Your task to perform on an android device: turn off data saver in the chrome app Image 0: 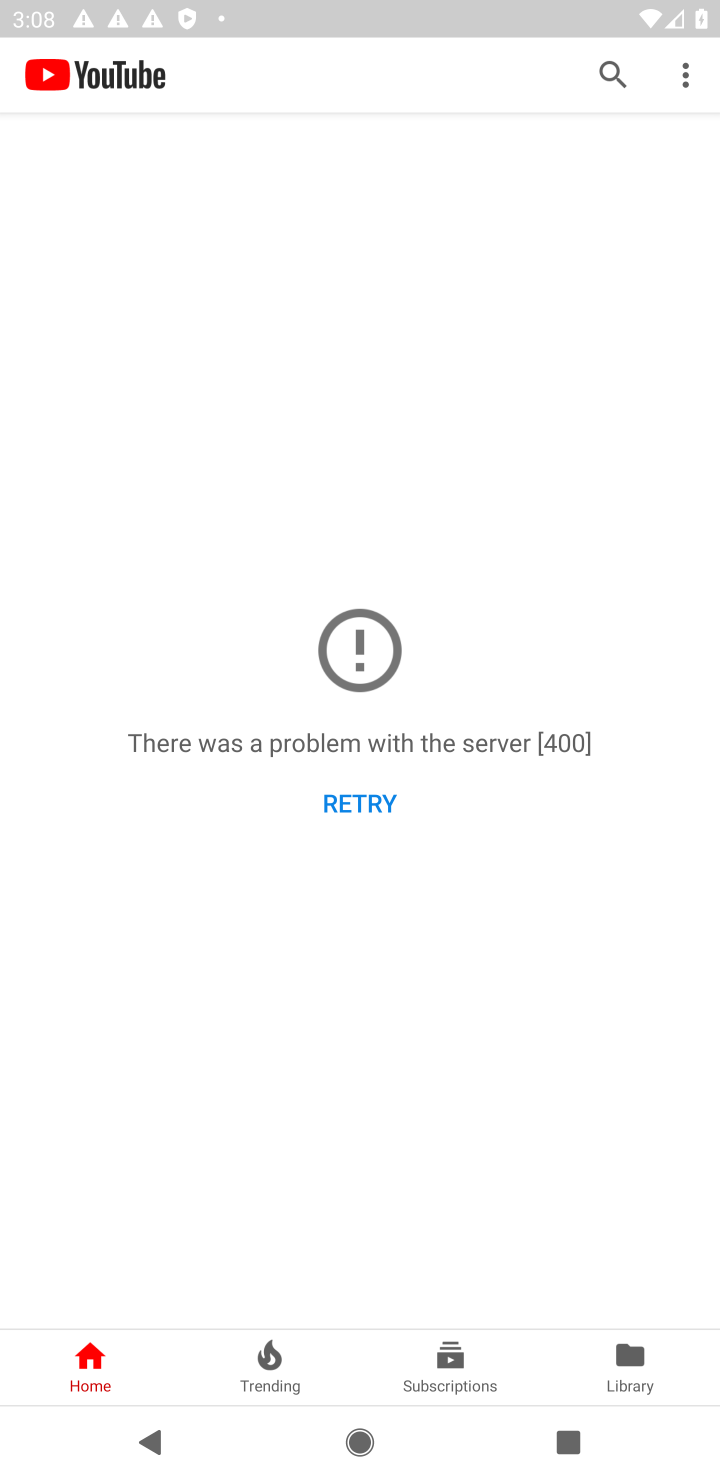
Step 0: press home button
Your task to perform on an android device: turn off data saver in the chrome app Image 1: 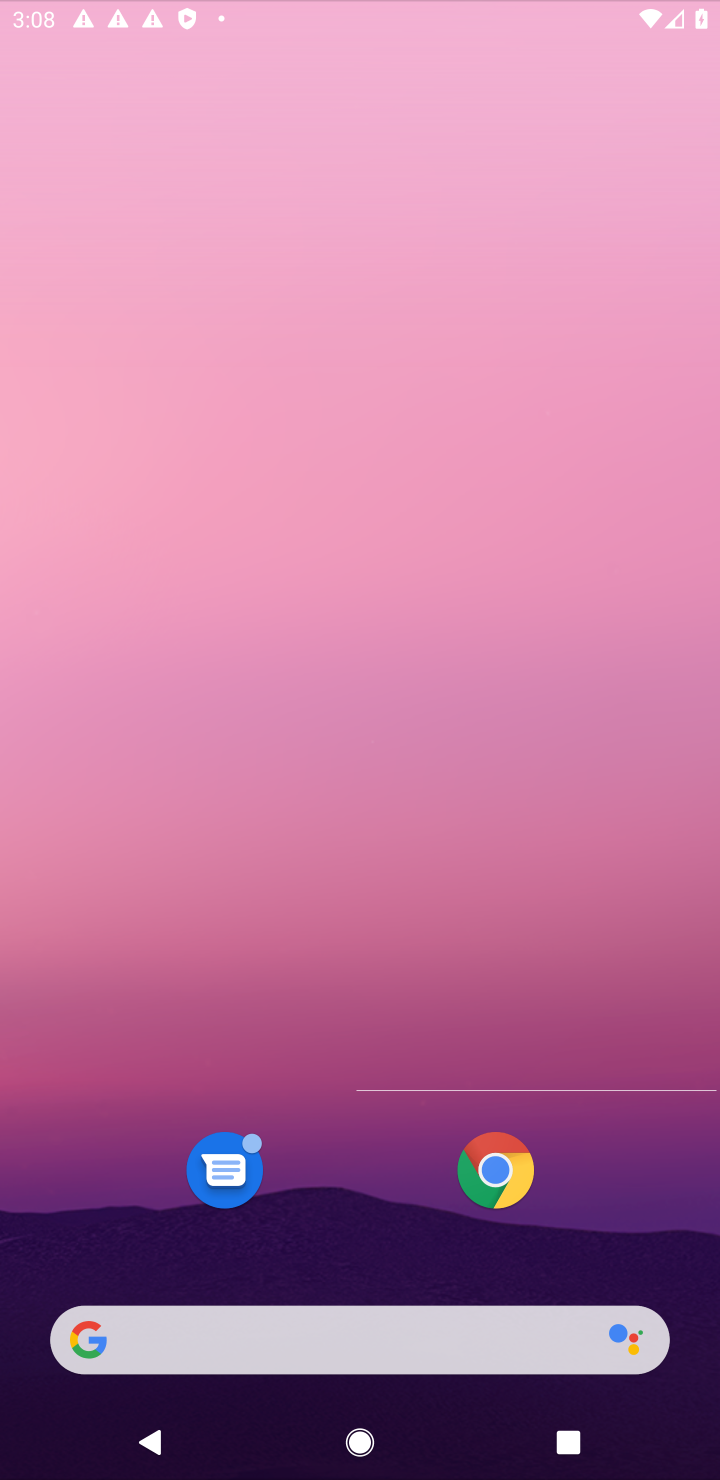
Step 1: press home button
Your task to perform on an android device: turn off data saver in the chrome app Image 2: 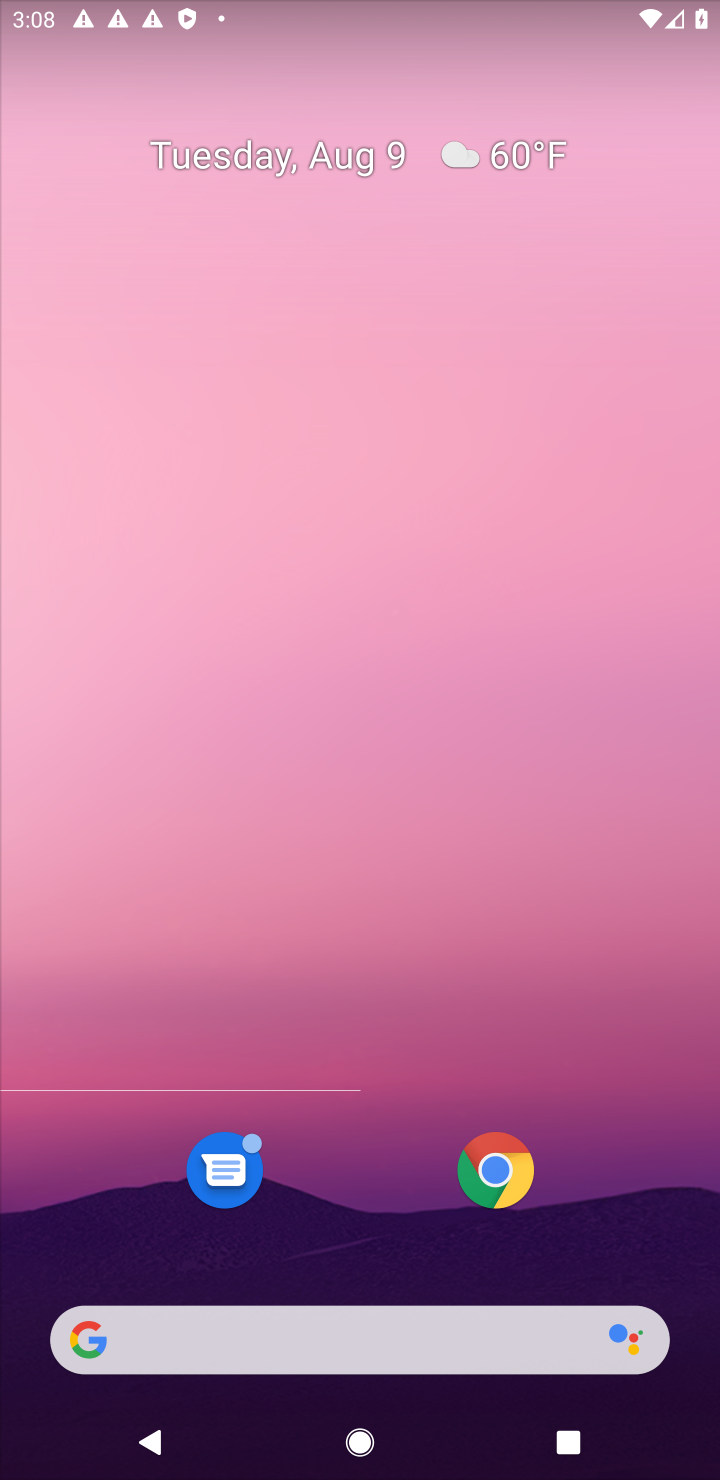
Step 2: click (507, 1173)
Your task to perform on an android device: turn off data saver in the chrome app Image 3: 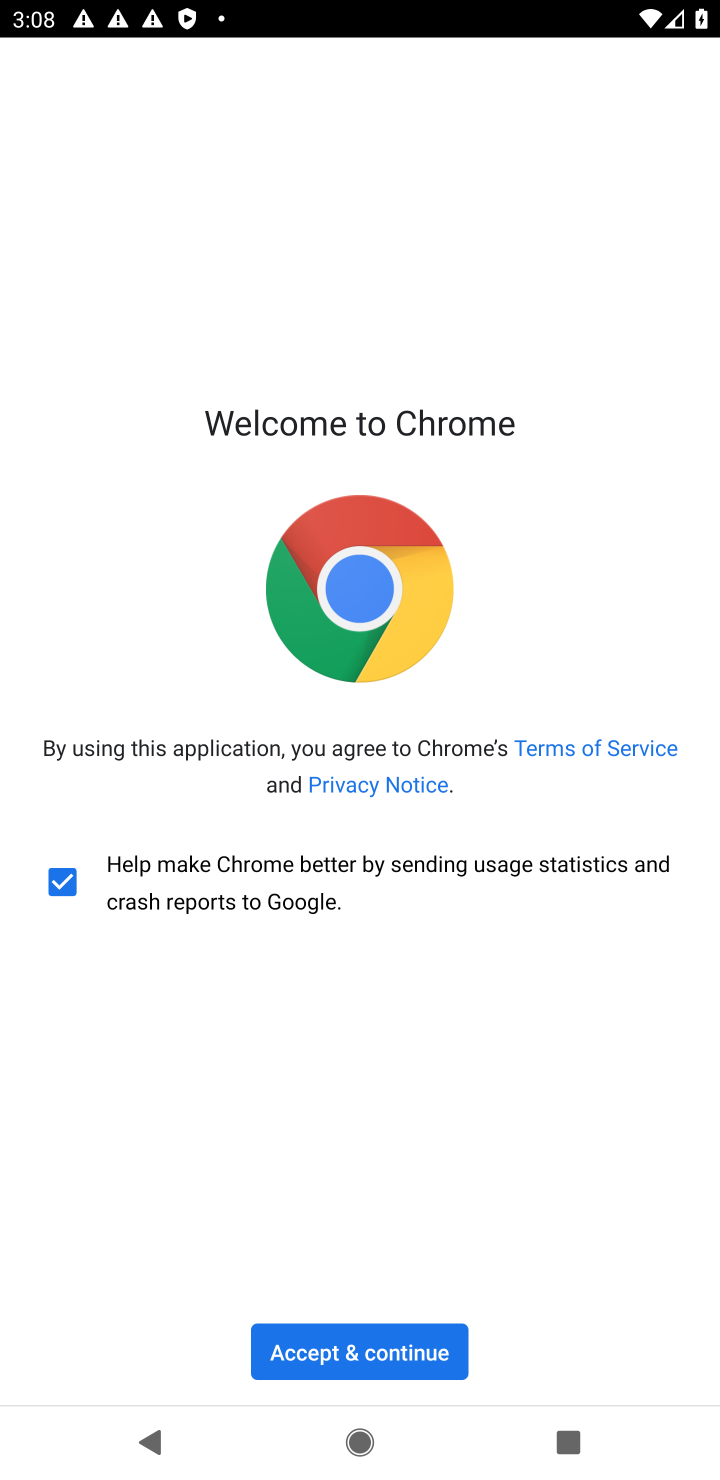
Step 3: click (298, 1343)
Your task to perform on an android device: turn off data saver in the chrome app Image 4: 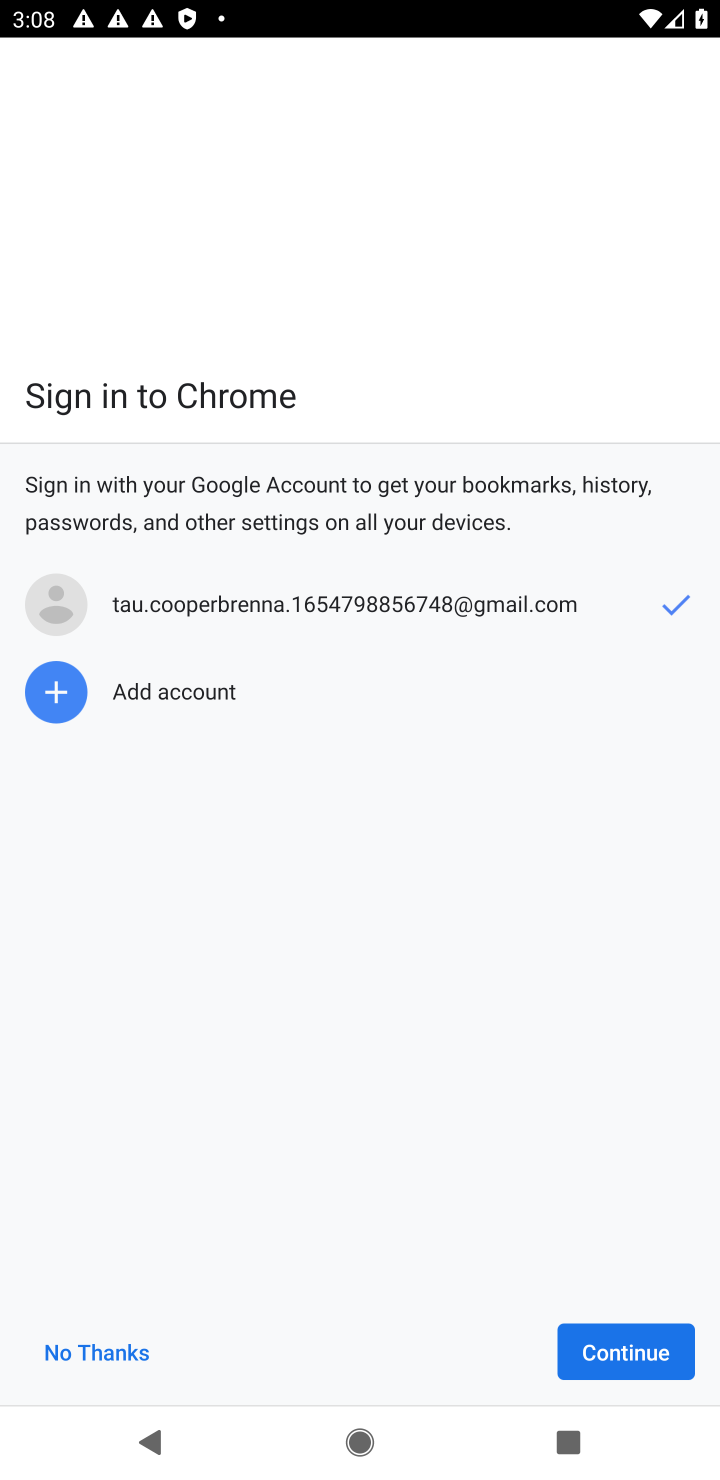
Step 4: click (670, 1333)
Your task to perform on an android device: turn off data saver in the chrome app Image 5: 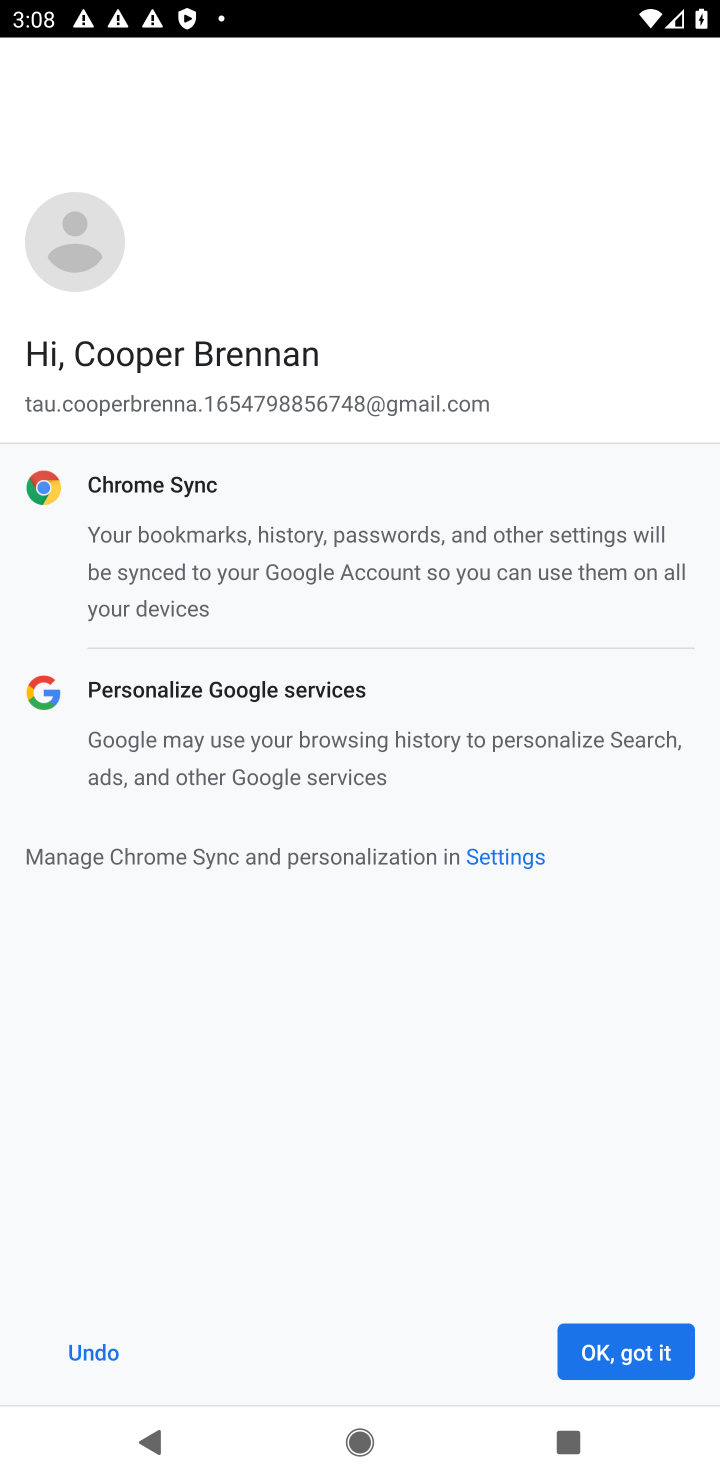
Step 5: click (670, 1329)
Your task to perform on an android device: turn off data saver in the chrome app Image 6: 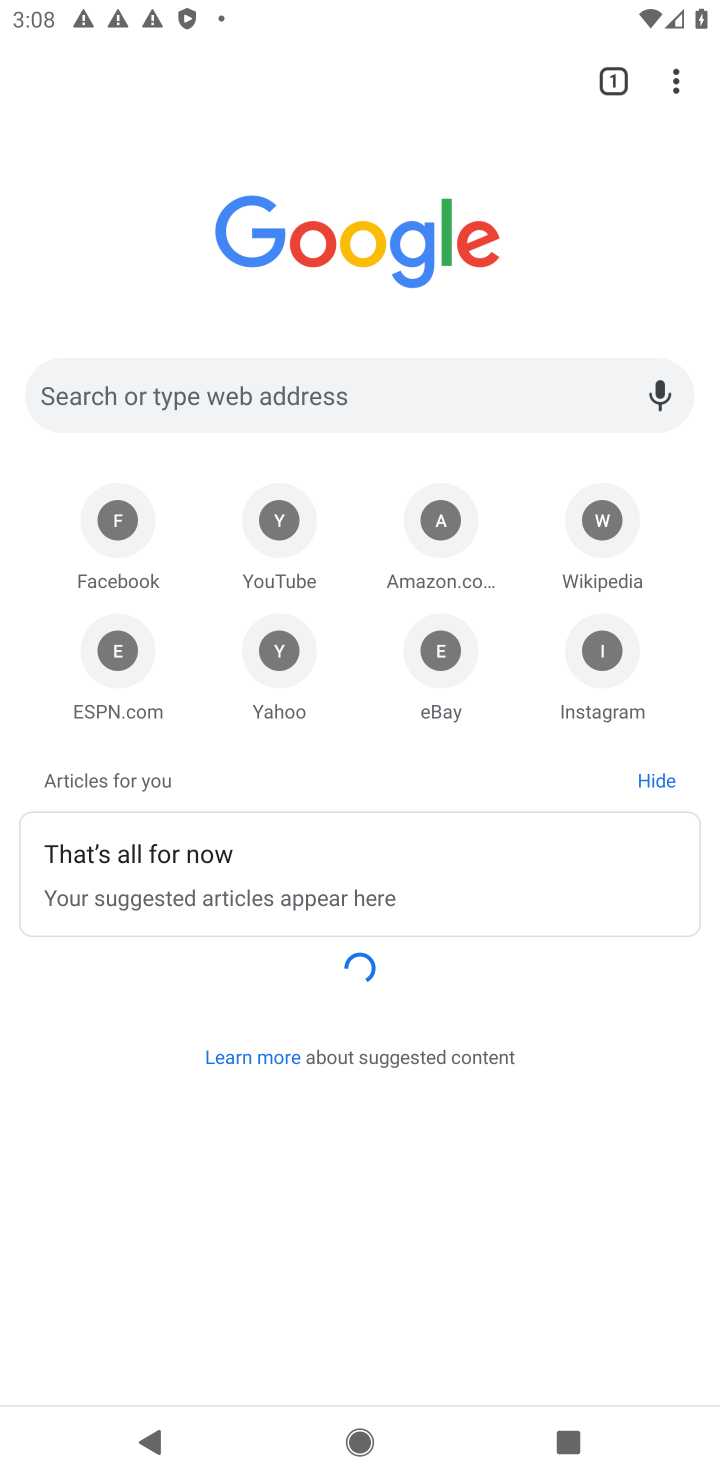
Step 6: drag from (671, 67) to (398, 668)
Your task to perform on an android device: turn off data saver in the chrome app Image 7: 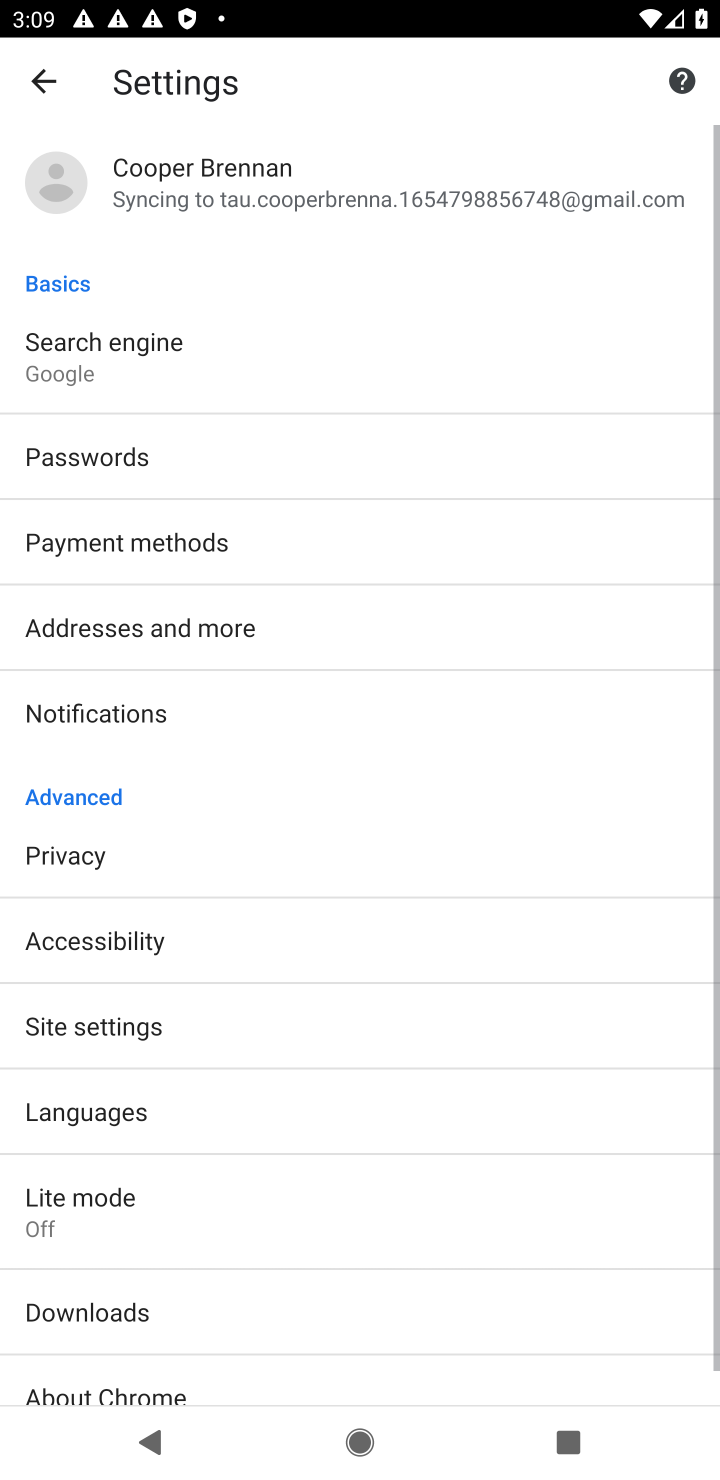
Step 7: click (97, 1211)
Your task to perform on an android device: turn off data saver in the chrome app Image 8: 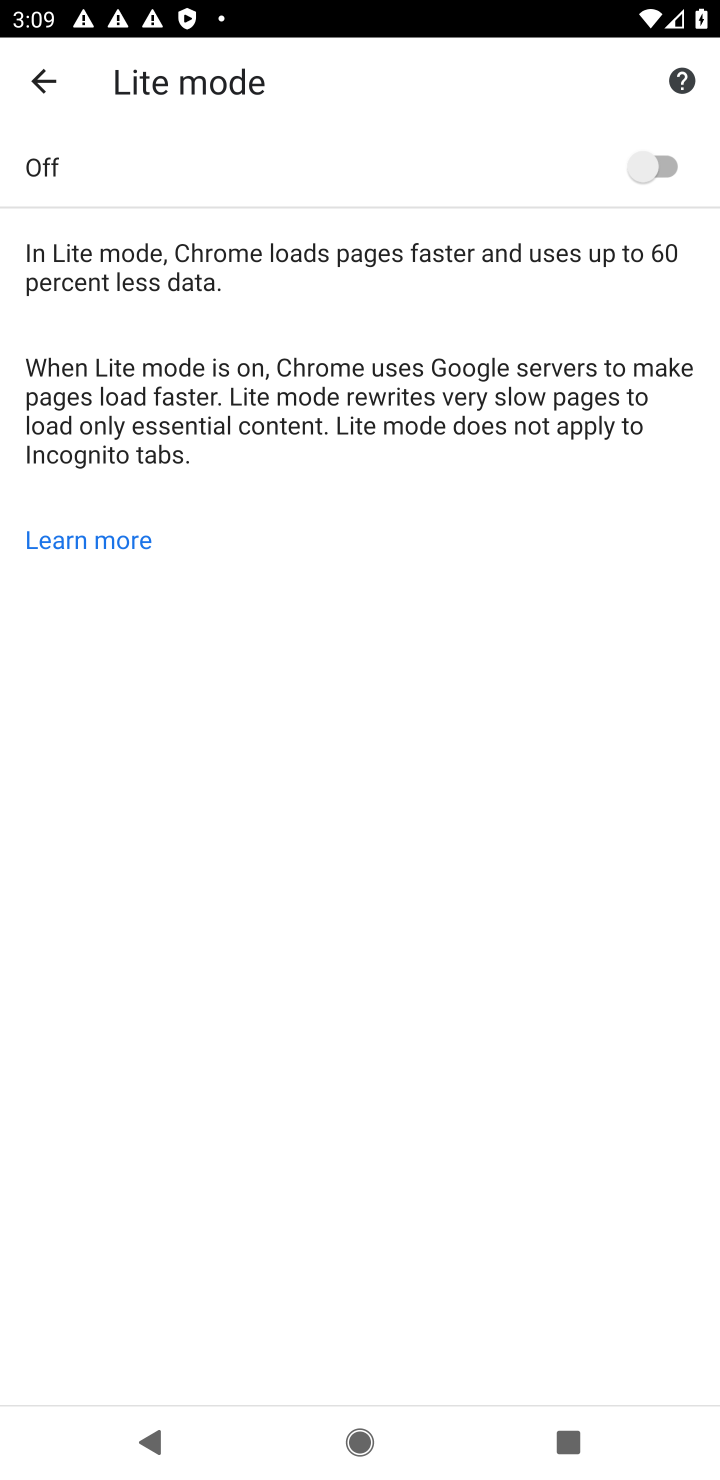
Step 8: task complete